Your task to perform on an android device: Open internet settings Image 0: 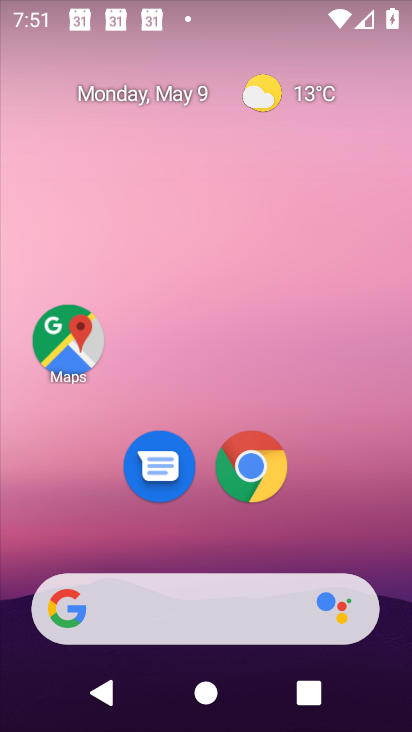
Step 0: drag from (296, 448) to (312, 251)
Your task to perform on an android device: Open internet settings Image 1: 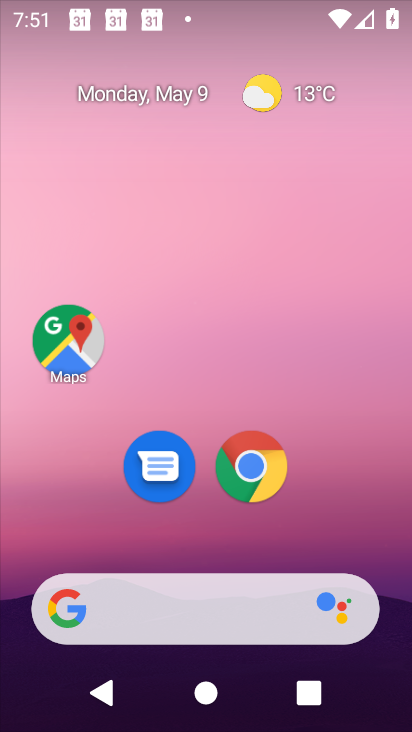
Step 1: drag from (285, 499) to (285, 329)
Your task to perform on an android device: Open internet settings Image 2: 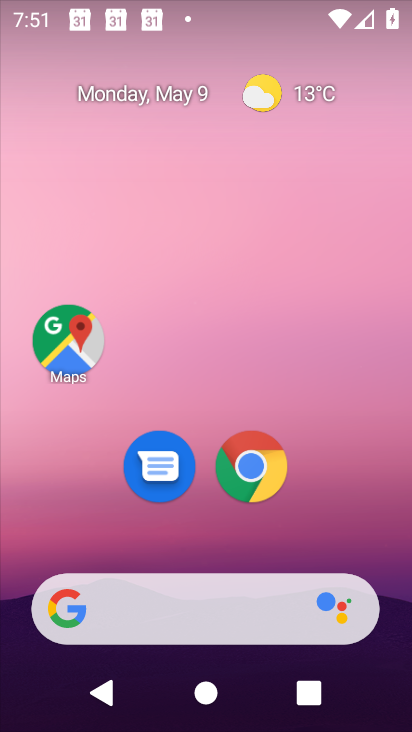
Step 2: drag from (213, 581) to (263, 219)
Your task to perform on an android device: Open internet settings Image 3: 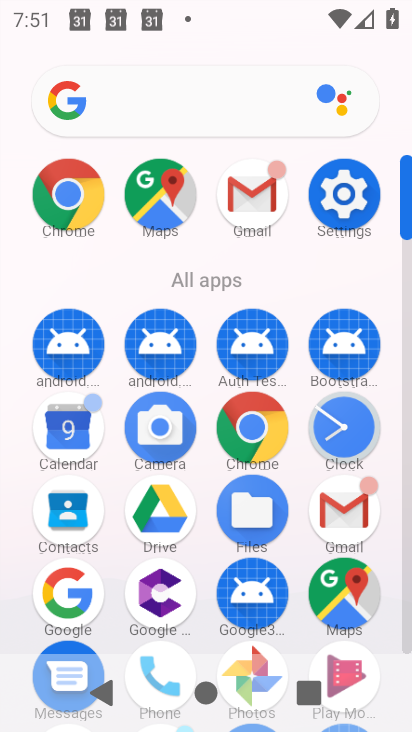
Step 3: click (340, 195)
Your task to perform on an android device: Open internet settings Image 4: 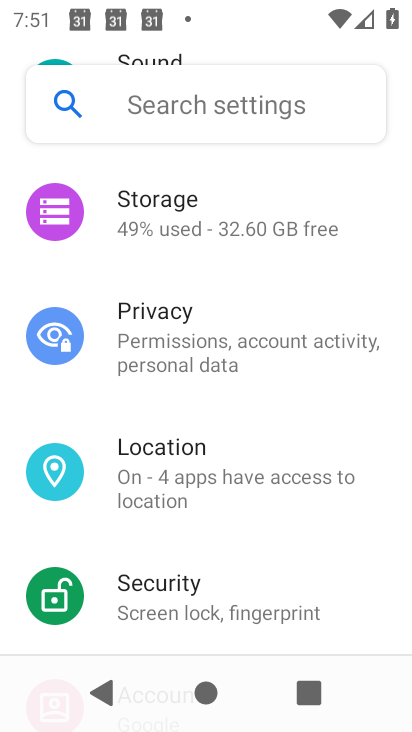
Step 4: drag from (164, 218) to (198, 646)
Your task to perform on an android device: Open internet settings Image 5: 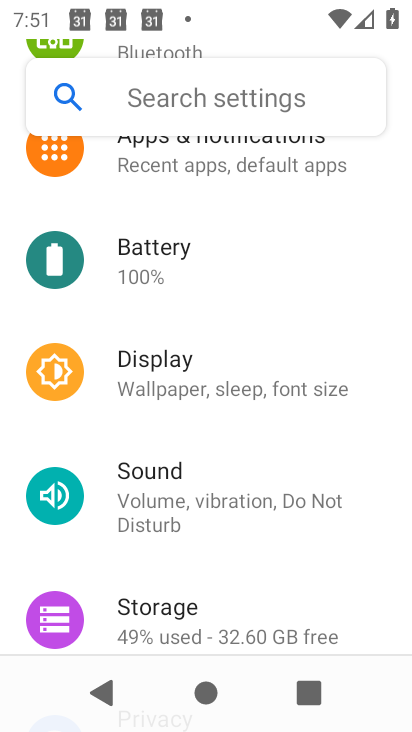
Step 5: drag from (253, 225) to (237, 623)
Your task to perform on an android device: Open internet settings Image 6: 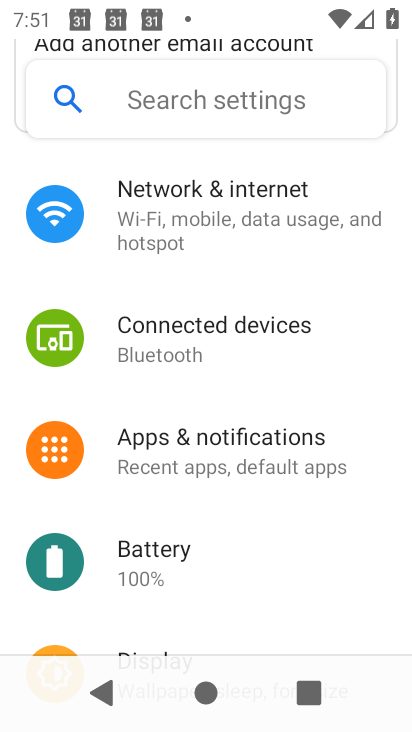
Step 6: click (238, 196)
Your task to perform on an android device: Open internet settings Image 7: 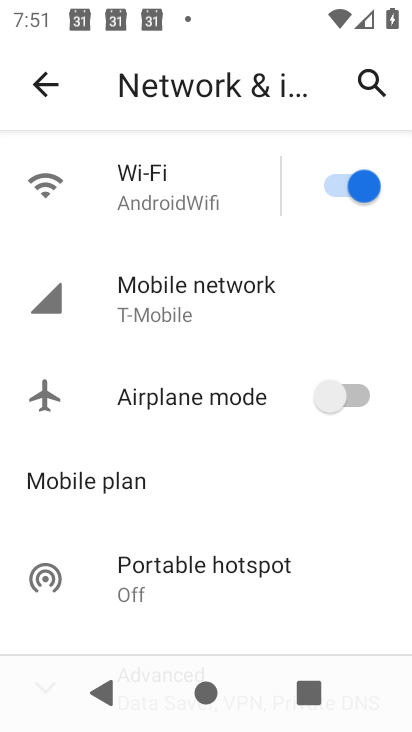
Step 7: click (214, 170)
Your task to perform on an android device: Open internet settings Image 8: 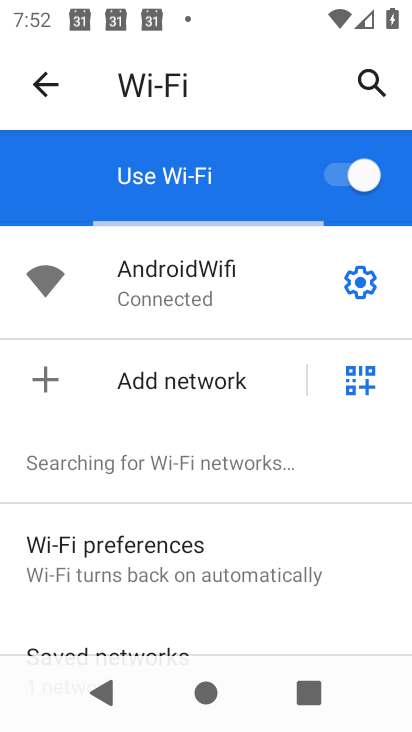
Step 8: task complete